Your task to perform on an android device: change timer sound Image 0: 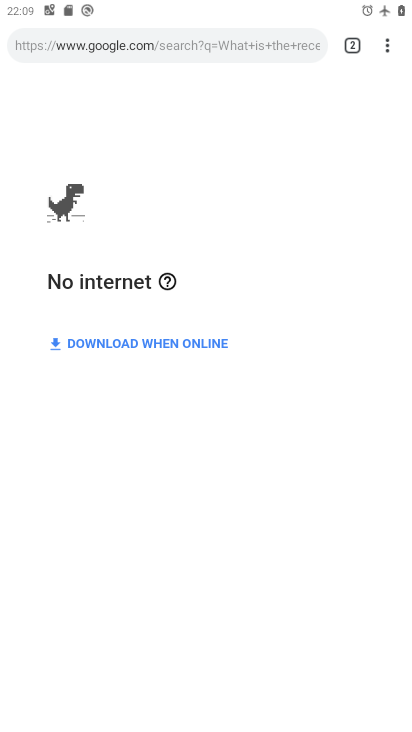
Step 0: press home button
Your task to perform on an android device: change timer sound Image 1: 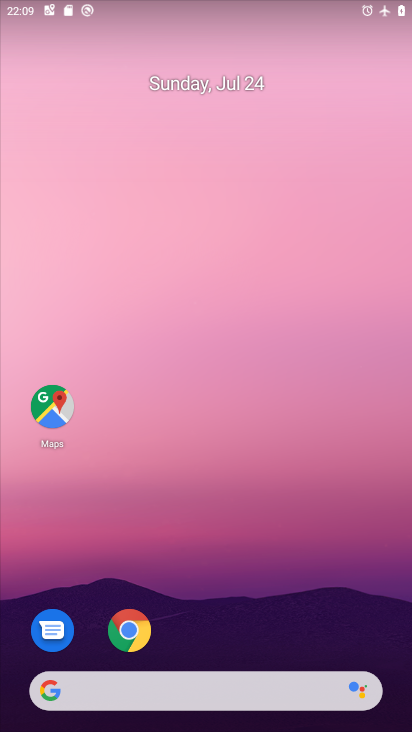
Step 1: drag from (194, 673) to (196, 198)
Your task to perform on an android device: change timer sound Image 2: 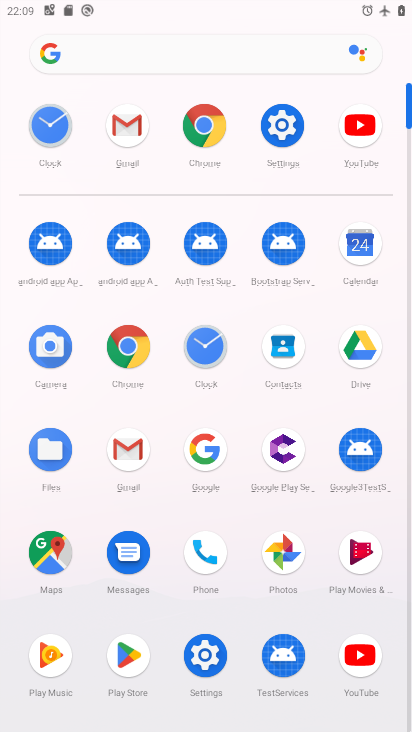
Step 2: click (276, 126)
Your task to perform on an android device: change timer sound Image 3: 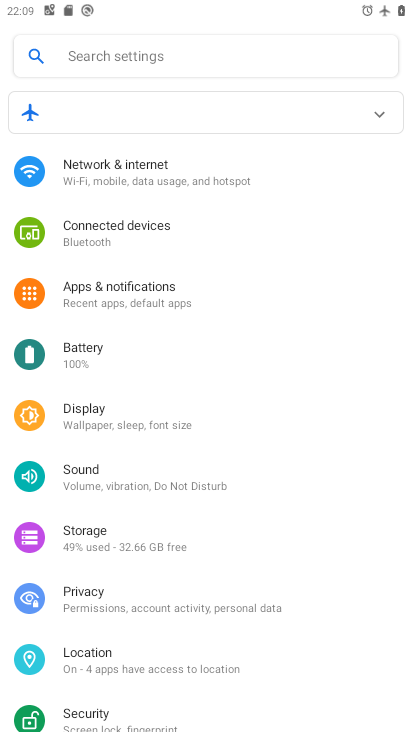
Step 3: press home button
Your task to perform on an android device: change timer sound Image 4: 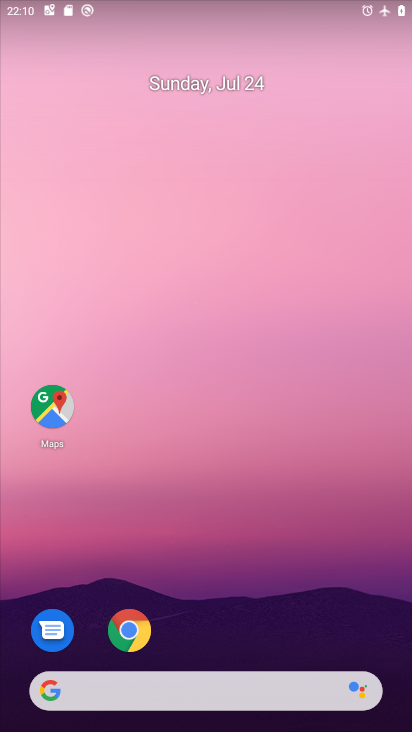
Step 4: drag from (228, 643) to (214, 340)
Your task to perform on an android device: change timer sound Image 5: 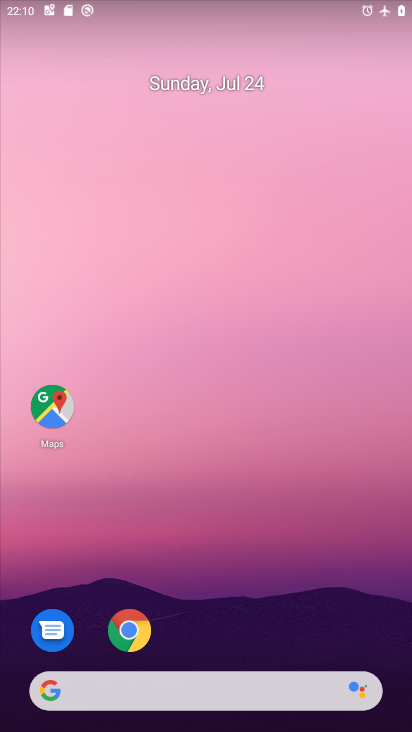
Step 5: drag from (247, 608) to (224, 179)
Your task to perform on an android device: change timer sound Image 6: 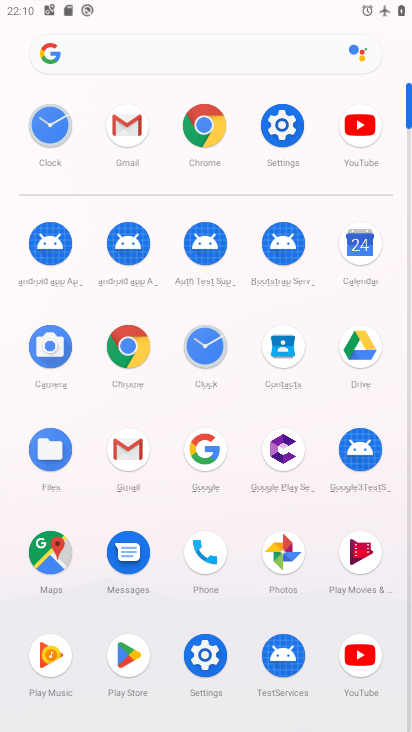
Step 6: click (219, 350)
Your task to perform on an android device: change timer sound Image 7: 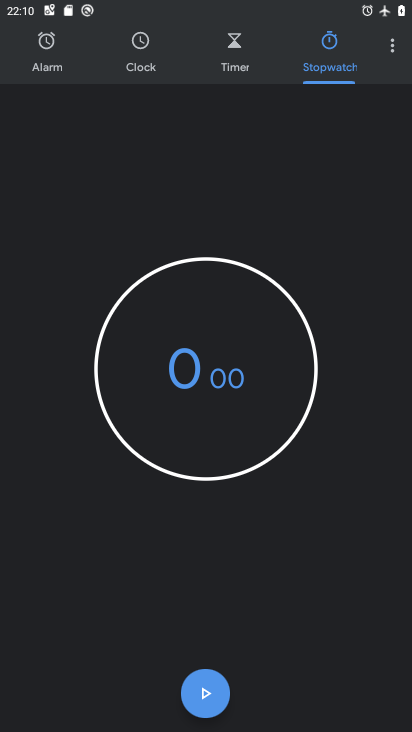
Step 7: click (387, 46)
Your task to perform on an android device: change timer sound Image 8: 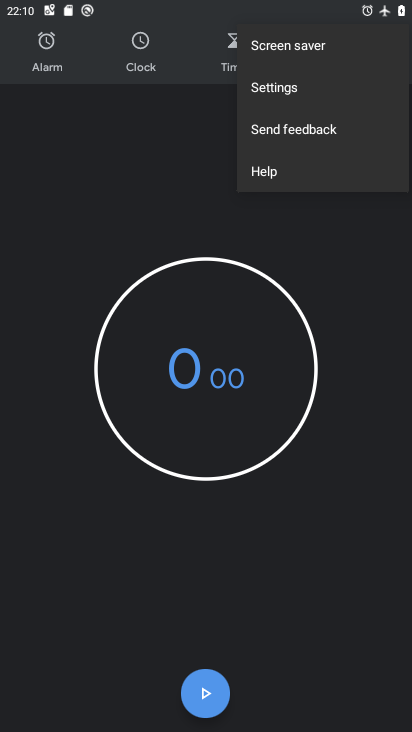
Step 8: click (255, 109)
Your task to perform on an android device: change timer sound Image 9: 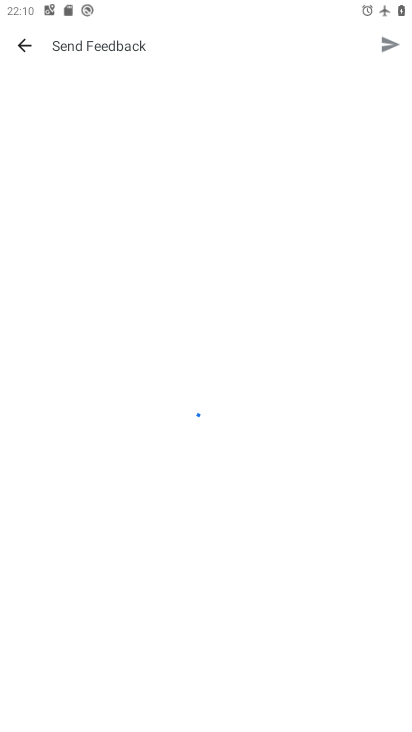
Step 9: click (389, 39)
Your task to perform on an android device: change timer sound Image 10: 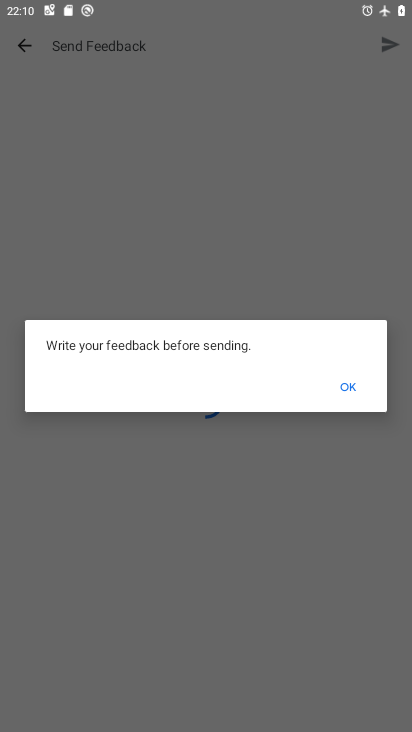
Step 10: click (15, 46)
Your task to perform on an android device: change timer sound Image 11: 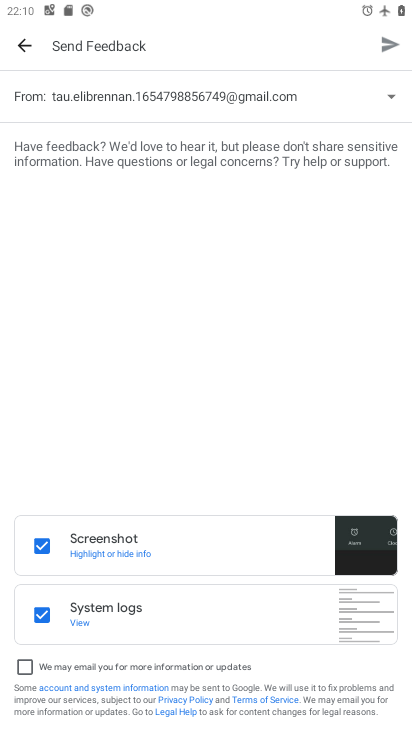
Step 11: click (15, 46)
Your task to perform on an android device: change timer sound Image 12: 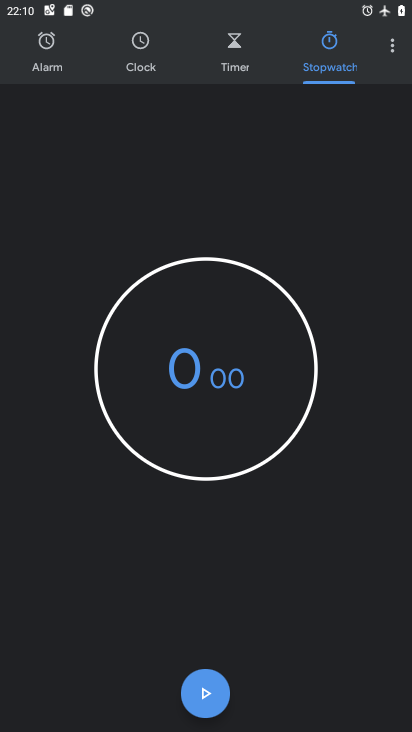
Step 12: click (386, 44)
Your task to perform on an android device: change timer sound Image 13: 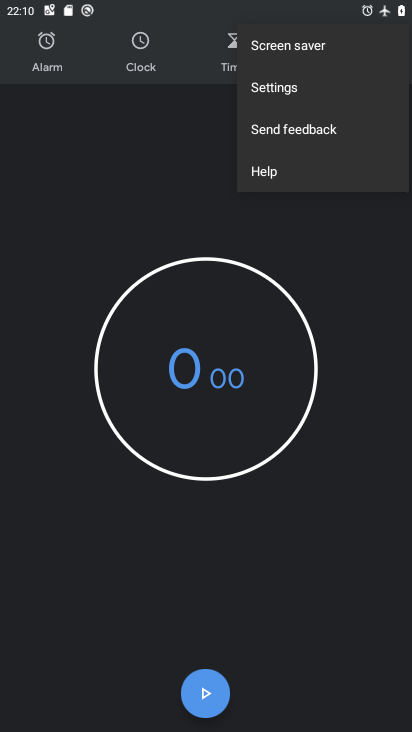
Step 13: click (304, 83)
Your task to perform on an android device: change timer sound Image 14: 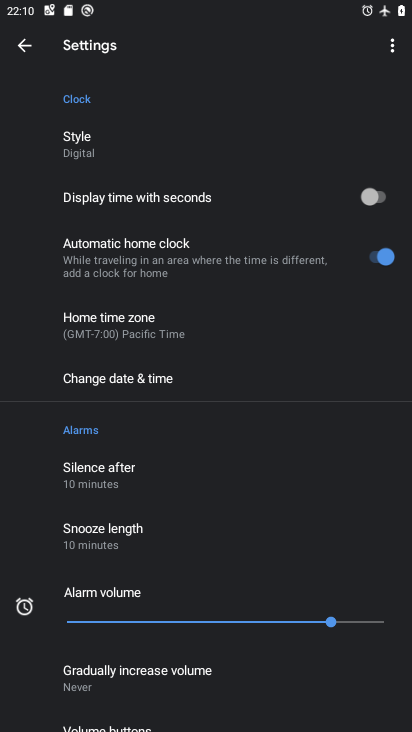
Step 14: drag from (134, 634) to (168, 229)
Your task to perform on an android device: change timer sound Image 15: 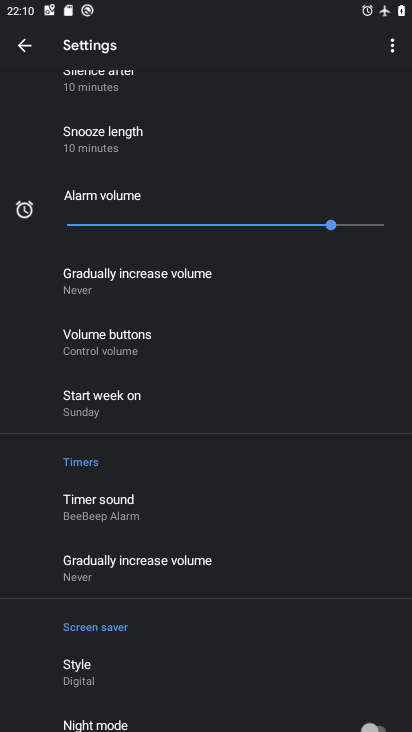
Step 15: click (74, 502)
Your task to perform on an android device: change timer sound Image 16: 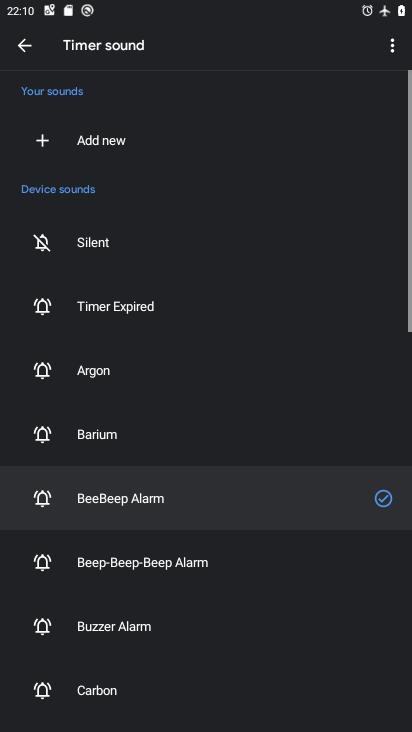
Step 16: click (149, 611)
Your task to perform on an android device: change timer sound Image 17: 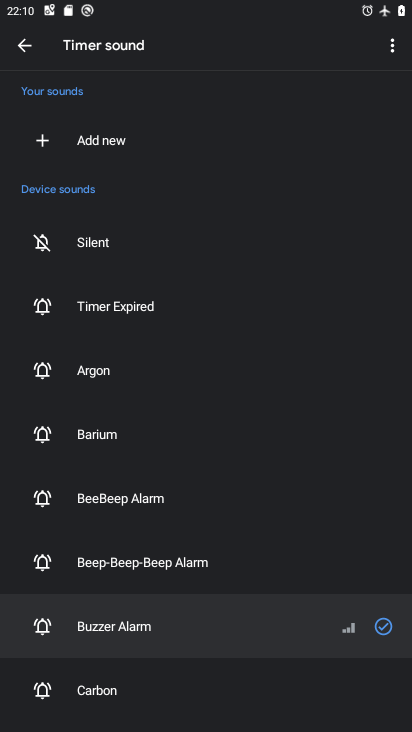
Step 17: task complete